Your task to perform on an android device: Open wifi settings Image 0: 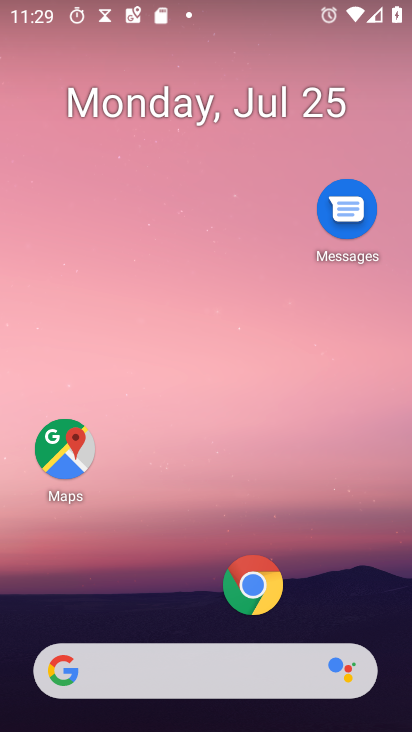
Step 0: press home button
Your task to perform on an android device: Open wifi settings Image 1: 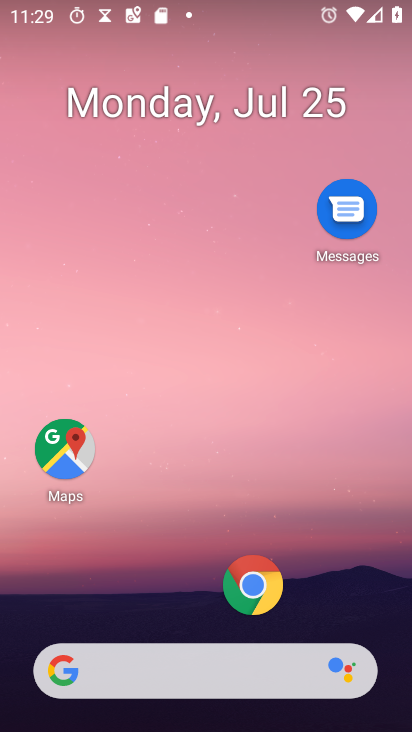
Step 1: drag from (204, 681) to (286, 63)
Your task to perform on an android device: Open wifi settings Image 2: 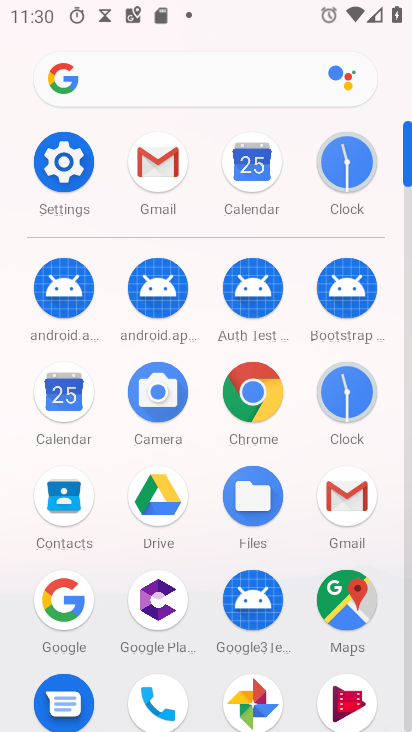
Step 2: click (69, 170)
Your task to perform on an android device: Open wifi settings Image 3: 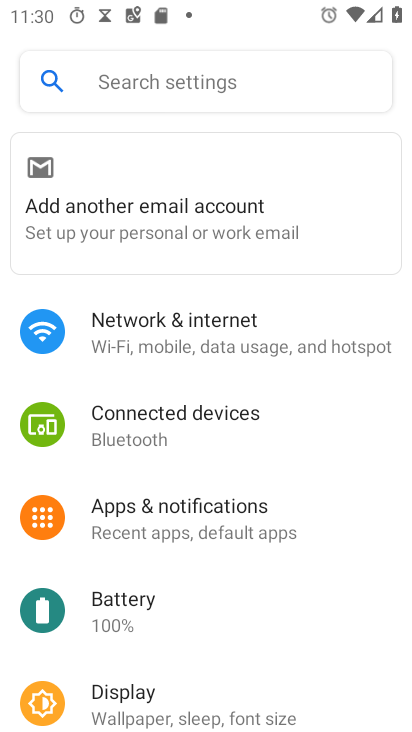
Step 3: click (216, 337)
Your task to perform on an android device: Open wifi settings Image 4: 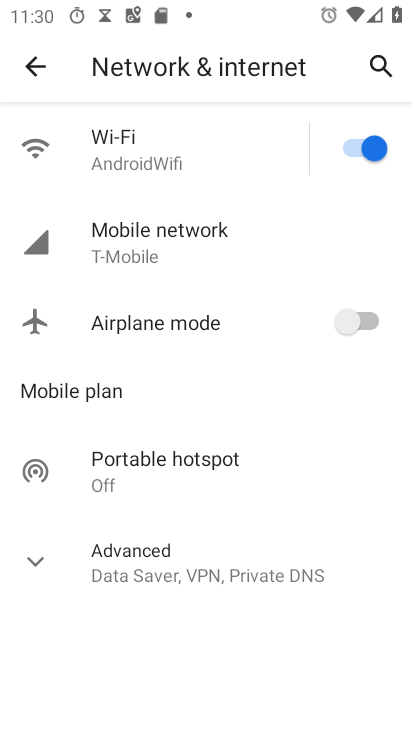
Step 4: click (137, 163)
Your task to perform on an android device: Open wifi settings Image 5: 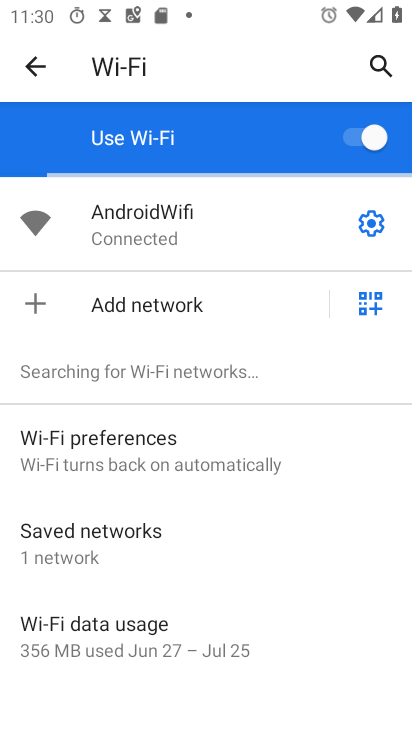
Step 5: task complete